Your task to perform on an android device: turn on the 24-hour format for clock Image 0: 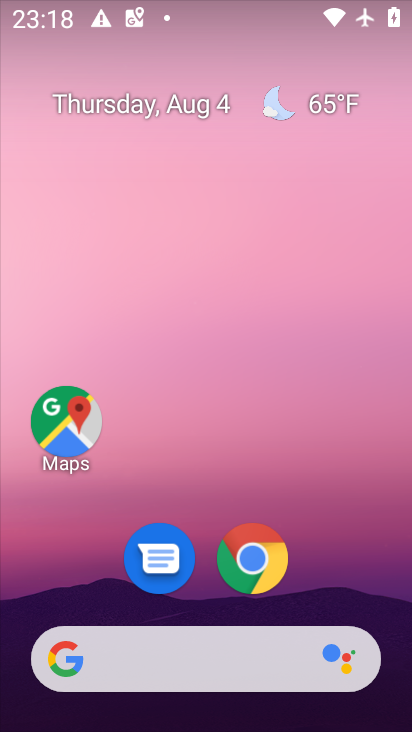
Step 0: drag from (353, 536) to (357, 62)
Your task to perform on an android device: turn on the 24-hour format for clock Image 1: 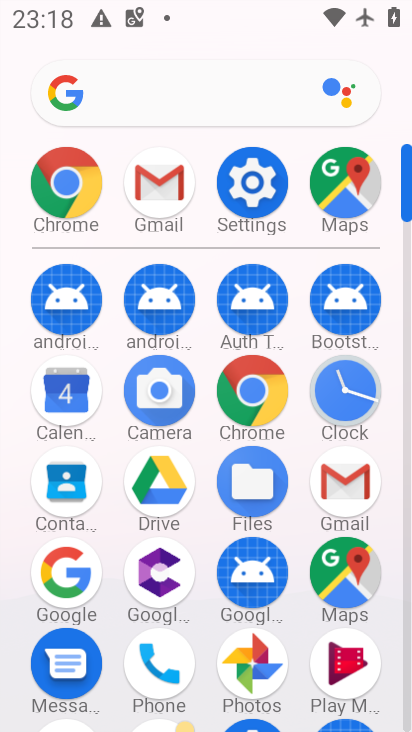
Step 1: click (353, 412)
Your task to perform on an android device: turn on the 24-hour format for clock Image 2: 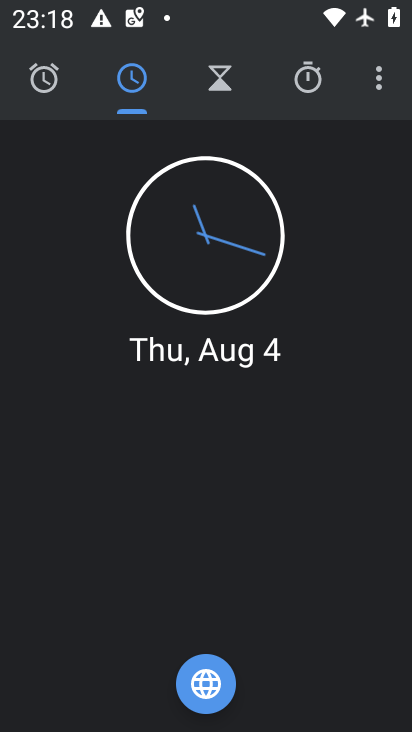
Step 2: click (391, 69)
Your task to perform on an android device: turn on the 24-hour format for clock Image 3: 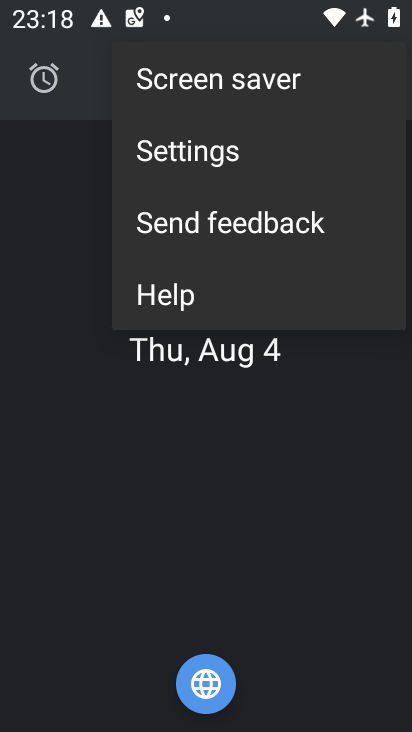
Step 3: click (196, 161)
Your task to perform on an android device: turn on the 24-hour format for clock Image 4: 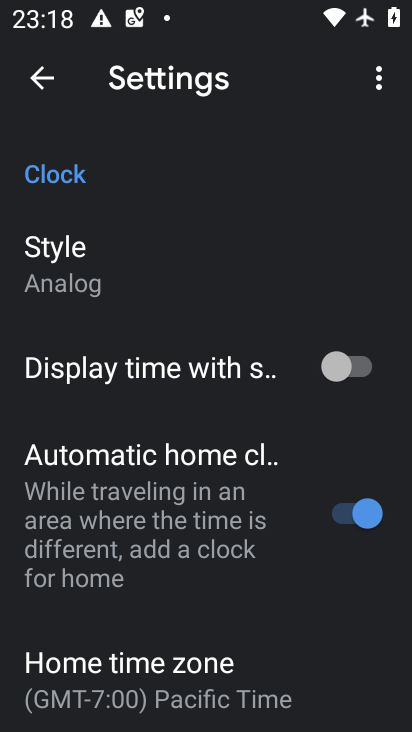
Step 4: drag from (243, 384) to (295, 98)
Your task to perform on an android device: turn on the 24-hour format for clock Image 5: 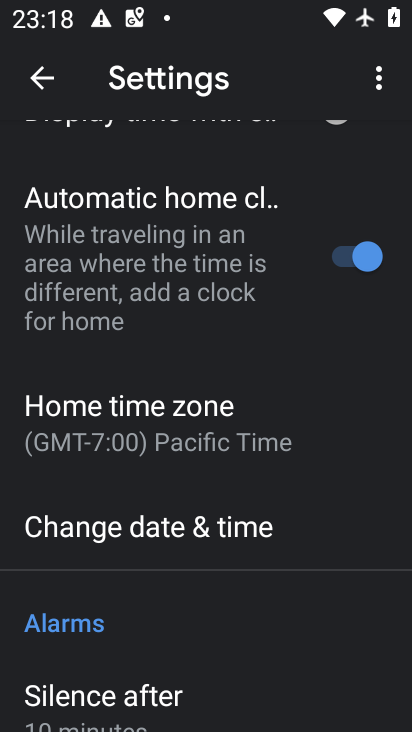
Step 5: drag from (283, 634) to (302, 207)
Your task to perform on an android device: turn on the 24-hour format for clock Image 6: 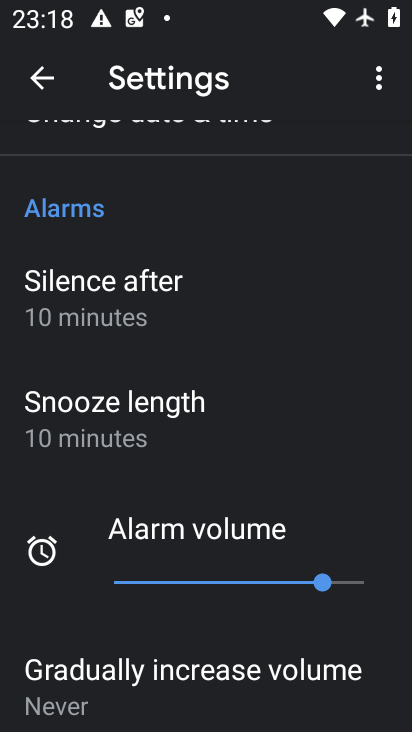
Step 6: drag from (261, 224) to (278, 445)
Your task to perform on an android device: turn on the 24-hour format for clock Image 7: 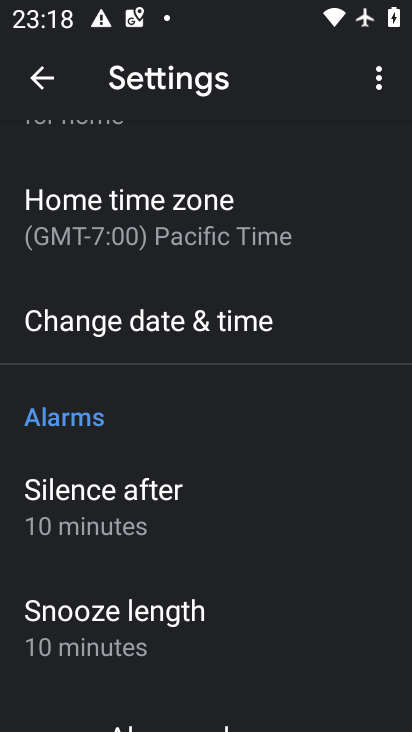
Step 7: click (201, 318)
Your task to perform on an android device: turn on the 24-hour format for clock Image 8: 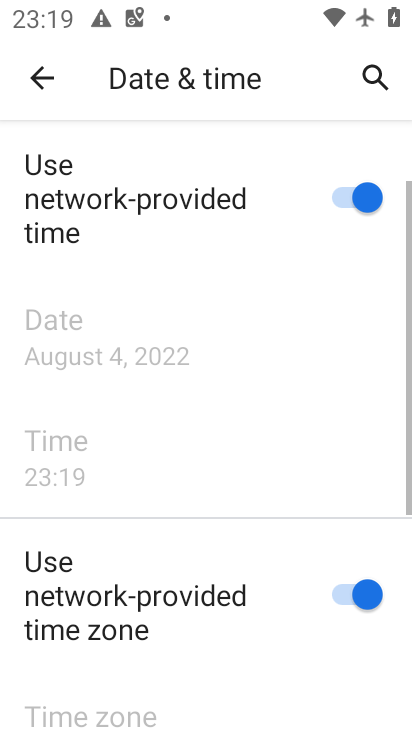
Step 8: task complete